Your task to perform on an android device: allow cookies in the chrome app Image 0: 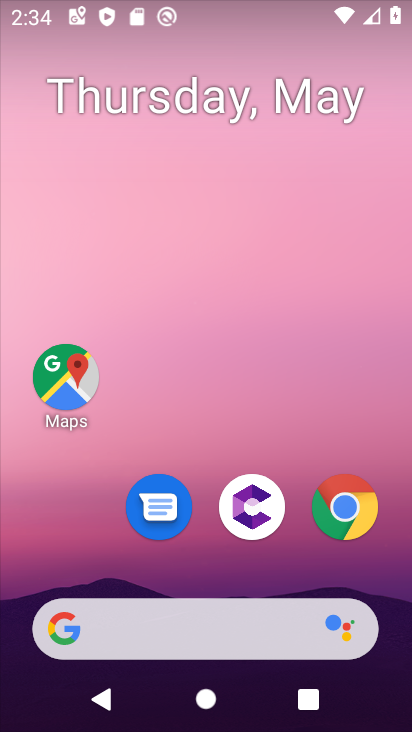
Step 0: press home button
Your task to perform on an android device: allow cookies in the chrome app Image 1: 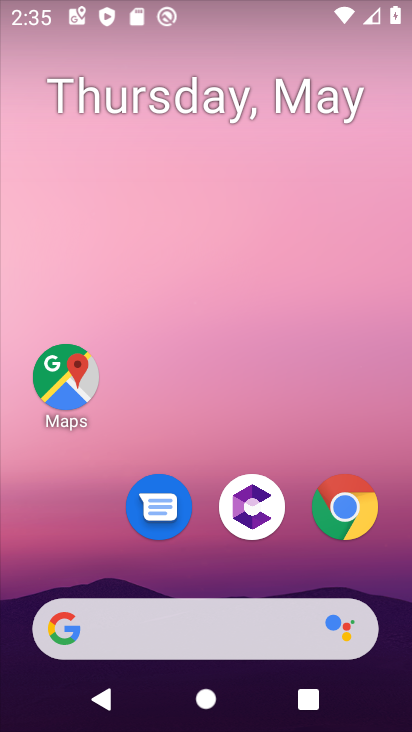
Step 1: click (336, 503)
Your task to perform on an android device: allow cookies in the chrome app Image 2: 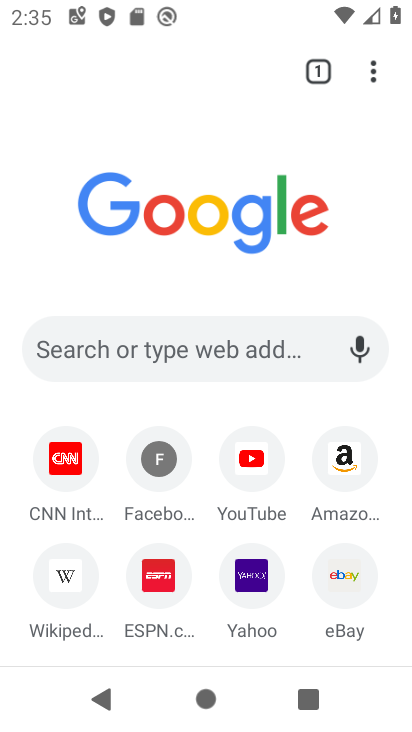
Step 2: drag from (365, 69) to (235, 488)
Your task to perform on an android device: allow cookies in the chrome app Image 3: 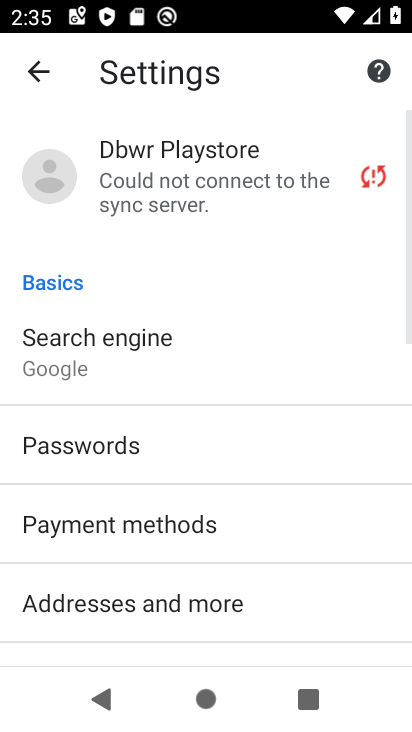
Step 3: drag from (194, 557) to (192, 5)
Your task to perform on an android device: allow cookies in the chrome app Image 4: 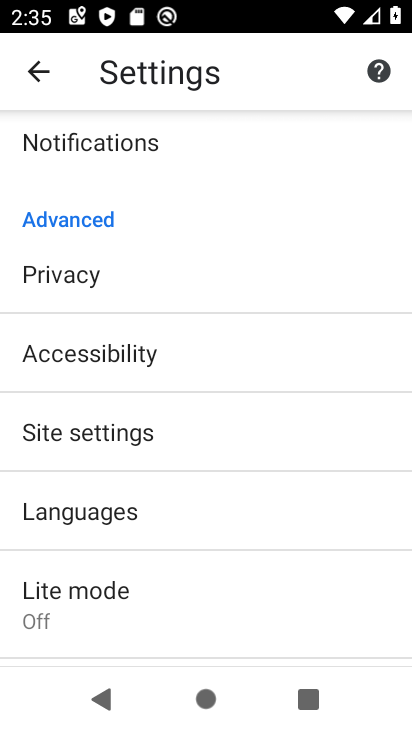
Step 4: click (135, 434)
Your task to perform on an android device: allow cookies in the chrome app Image 5: 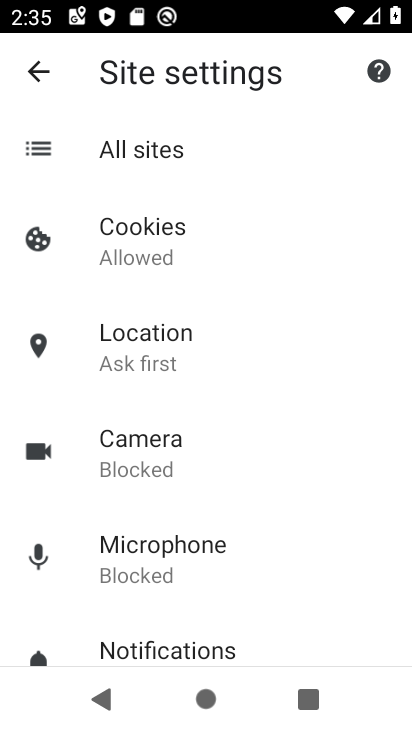
Step 5: click (136, 222)
Your task to perform on an android device: allow cookies in the chrome app Image 6: 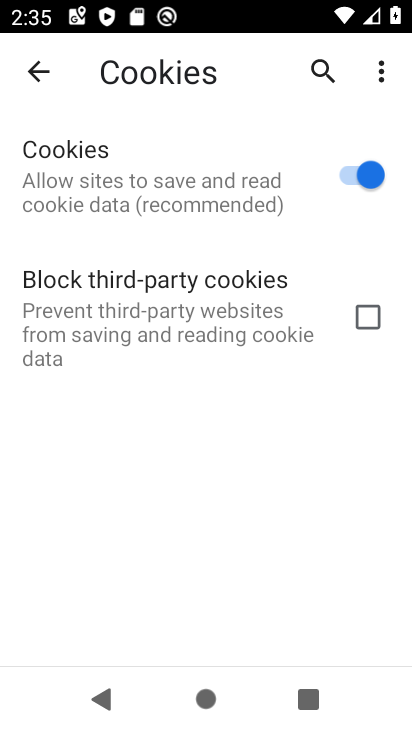
Step 6: task complete